Your task to perform on an android device: Go to Maps Image 0: 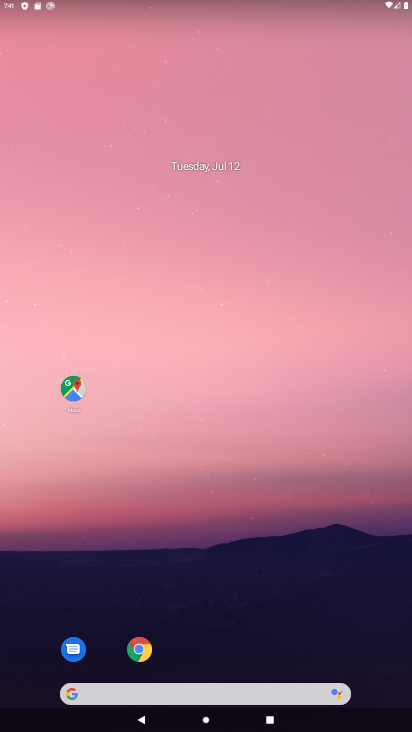
Step 0: drag from (317, 562) to (246, 63)
Your task to perform on an android device: Go to Maps Image 1: 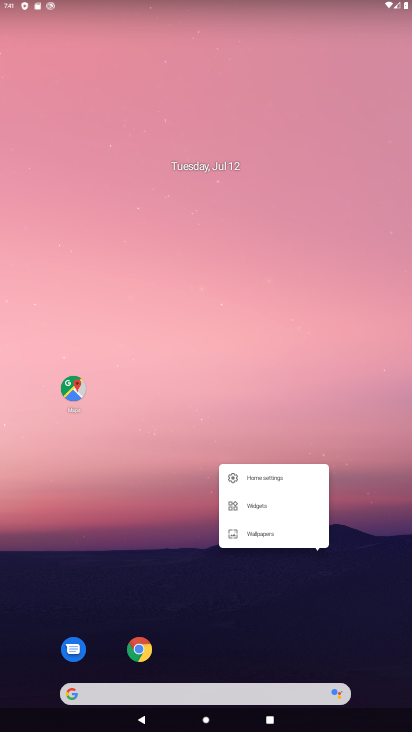
Step 1: click (290, 230)
Your task to perform on an android device: Go to Maps Image 2: 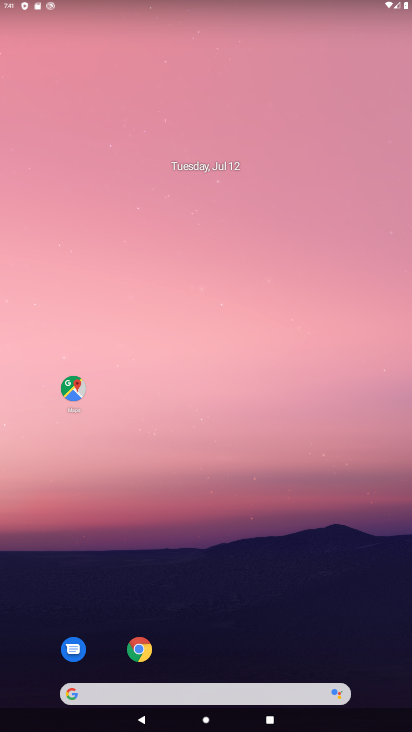
Step 2: drag from (318, 642) to (286, 155)
Your task to perform on an android device: Go to Maps Image 3: 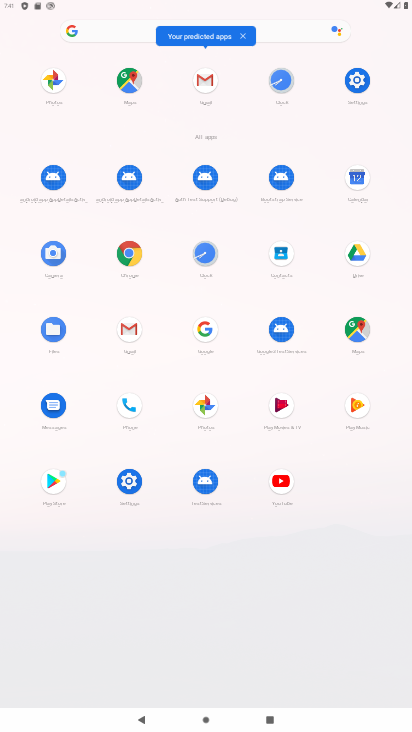
Step 3: click (361, 331)
Your task to perform on an android device: Go to Maps Image 4: 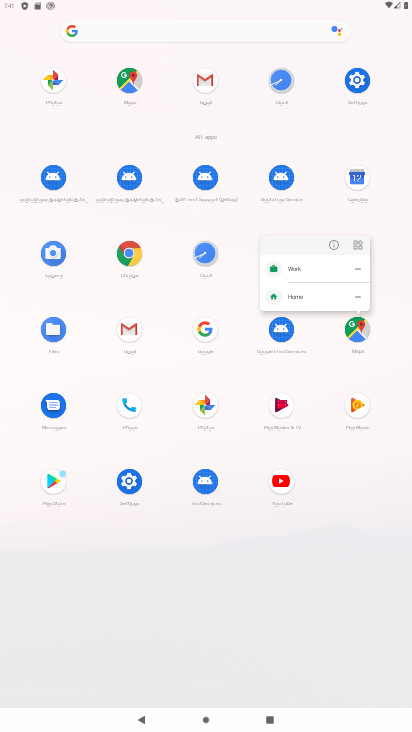
Step 4: click (350, 339)
Your task to perform on an android device: Go to Maps Image 5: 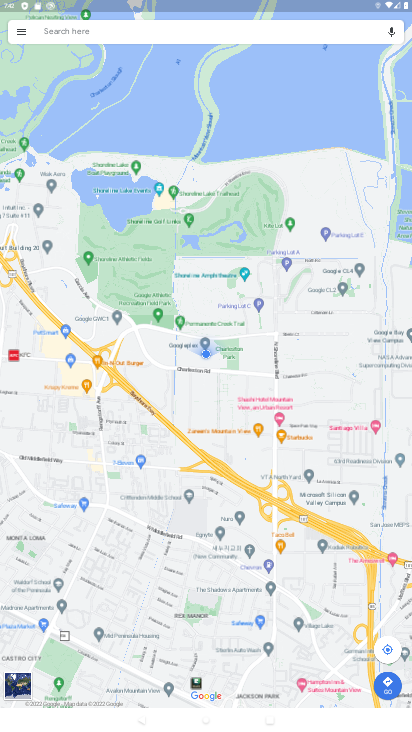
Step 5: task complete